Your task to perform on an android device: toggle priority inbox in the gmail app Image 0: 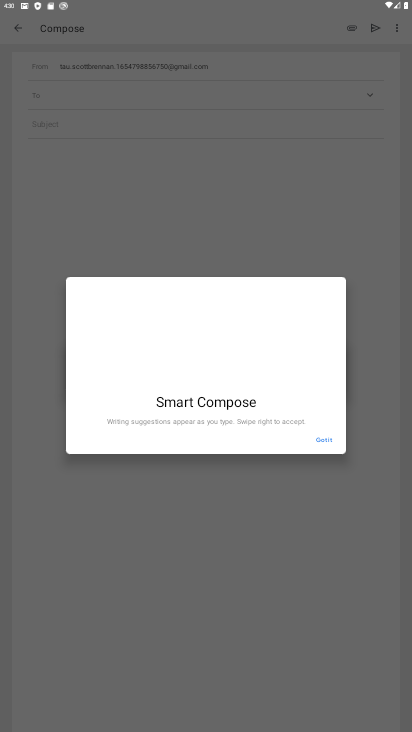
Step 0: press home button
Your task to perform on an android device: toggle priority inbox in the gmail app Image 1: 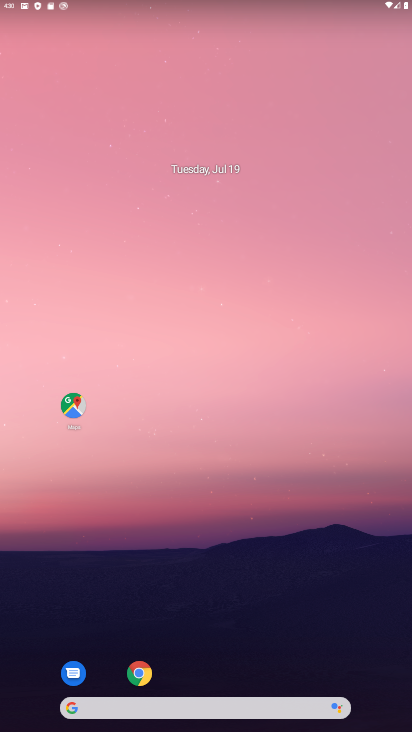
Step 1: click (192, 158)
Your task to perform on an android device: toggle priority inbox in the gmail app Image 2: 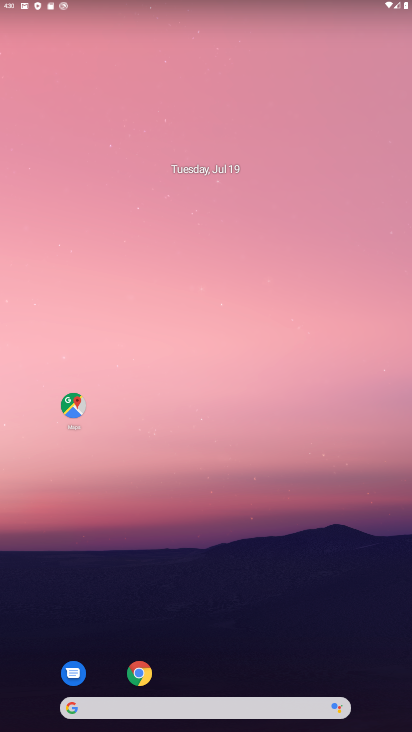
Step 2: drag from (244, 552) to (196, 0)
Your task to perform on an android device: toggle priority inbox in the gmail app Image 3: 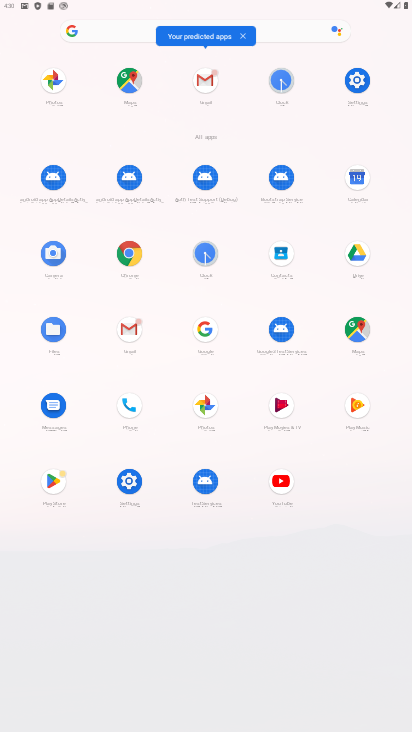
Step 3: click (211, 81)
Your task to perform on an android device: toggle priority inbox in the gmail app Image 4: 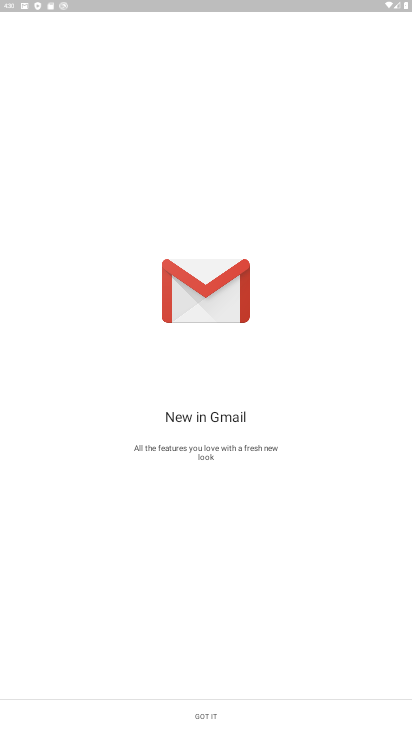
Step 4: click (208, 713)
Your task to perform on an android device: toggle priority inbox in the gmail app Image 5: 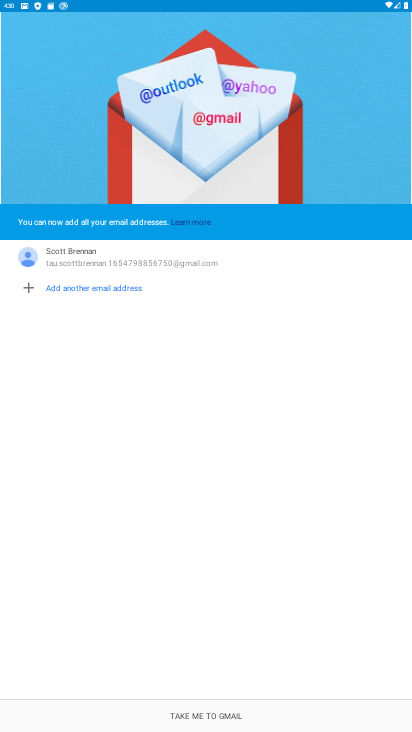
Step 5: click (208, 711)
Your task to perform on an android device: toggle priority inbox in the gmail app Image 6: 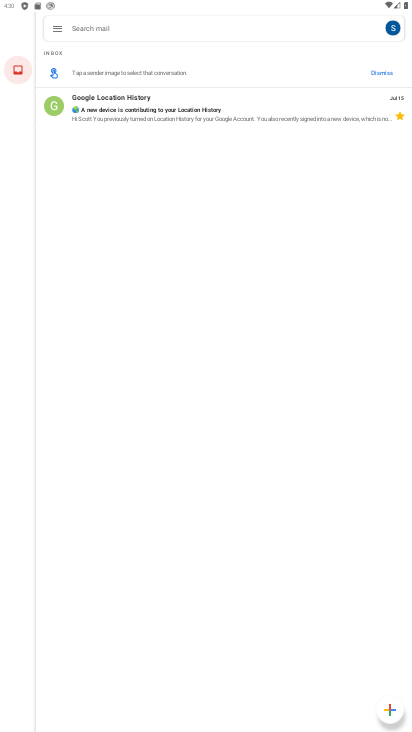
Step 6: click (51, 28)
Your task to perform on an android device: toggle priority inbox in the gmail app Image 7: 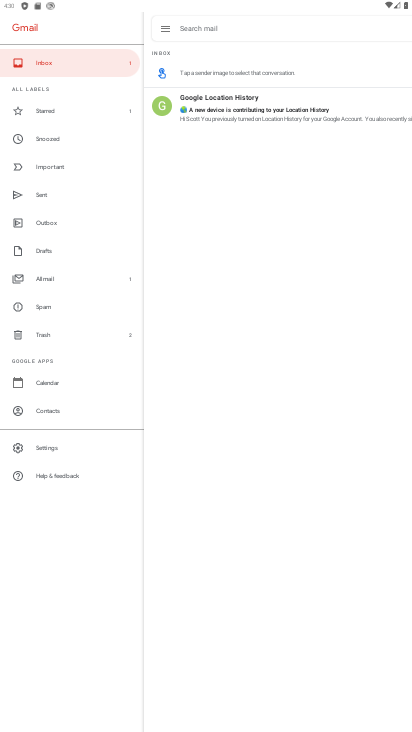
Step 7: click (54, 450)
Your task to perform on an android device: toggle priority inbox in the gmail app Image 8: 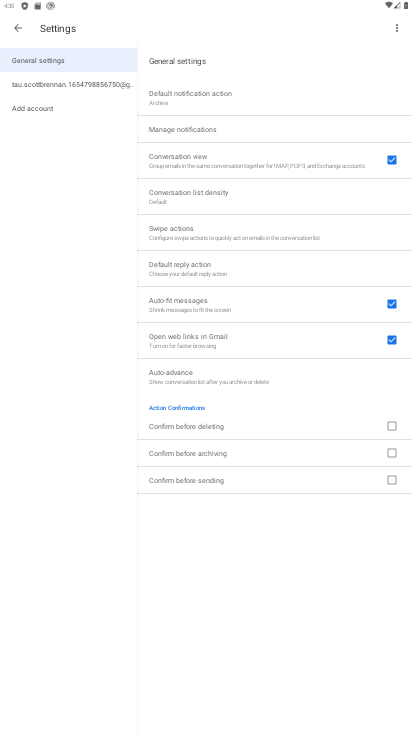
Step 8: click (43, 87)
Your task to perform on an android device: toggle priority inbox in the gmail app Image 9: 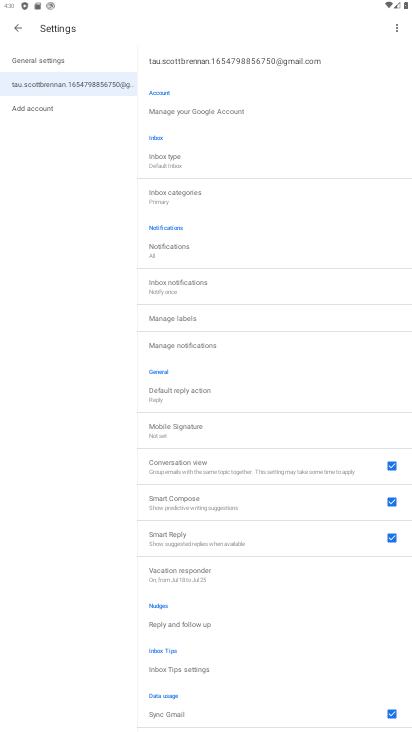
Step 9: click (164, 163)
Your task to perform on an android device: toggle priority inbox in the gmail app Image 10: 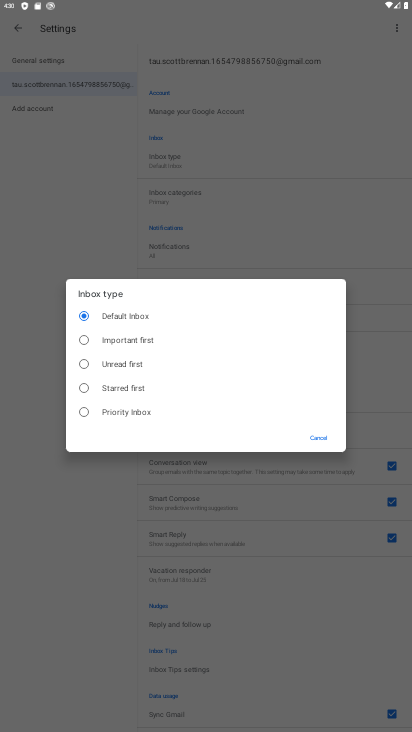
Step 10: click (85, 413)
Your task to perform on an android device: toggle priority inbox in the gmail app Image 11: 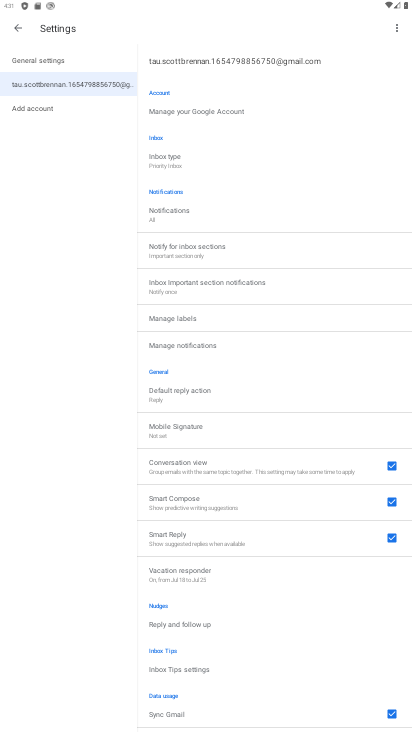
Step 11: task complete